Your task to perform on an android device: allow cookies in the chrome app Image 0: 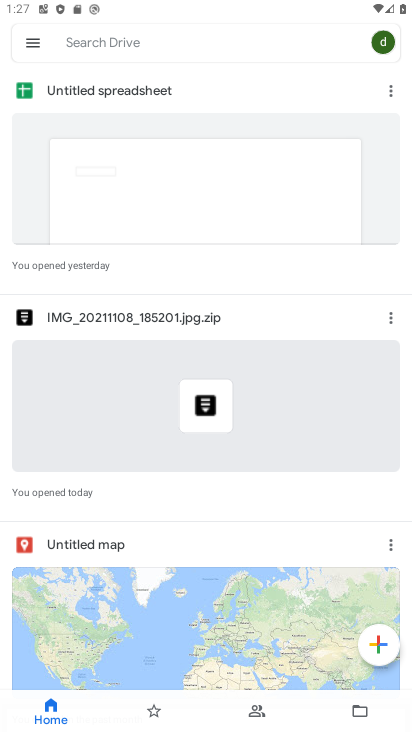
Step 0: press home button
Your task to perform on an android device: allow cookies in the chrome app Image 1: 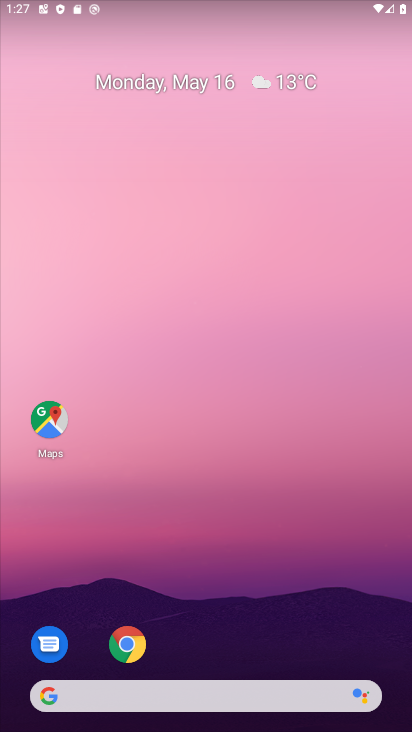
Step 1: drag from (257, 622) to (273, 202)
Your task to perform on an android device: allow cookies in the chrome app Image 2: 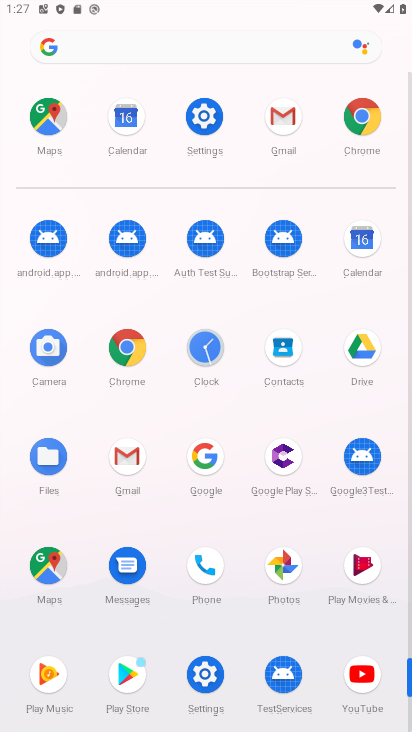
Step 2: click (125, 370)
Your task to perform on an android device: allow cookies in the chrome app Image 3: 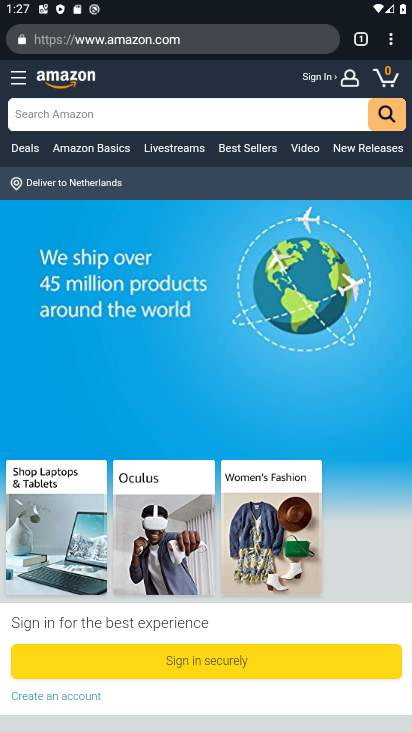
Step 3: click (390, 43)
Your task to perform on an android device: allow cookies in the chrome app Image 4: 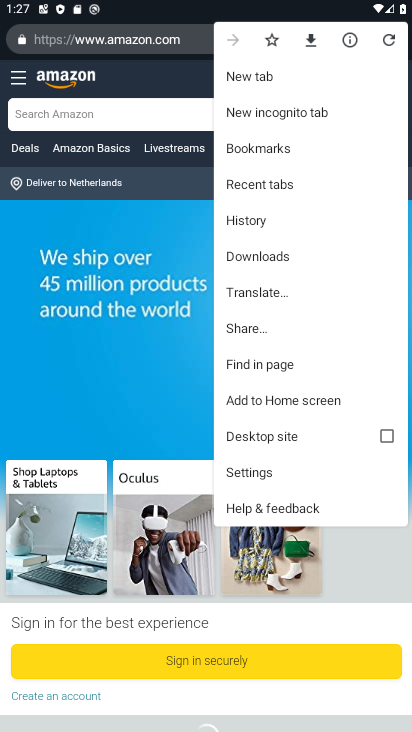
Step 4: click (267, 472)
Your task to perform on an android device: allow cookies in the chrome app Image 5: 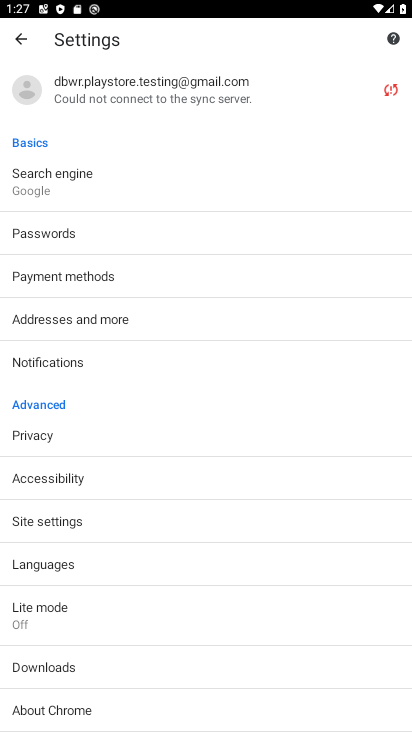
Step 5: drag from (166, 661) to (246, 303)
Your task to perform on an android device: allow cookies in the chrome app Image 6: 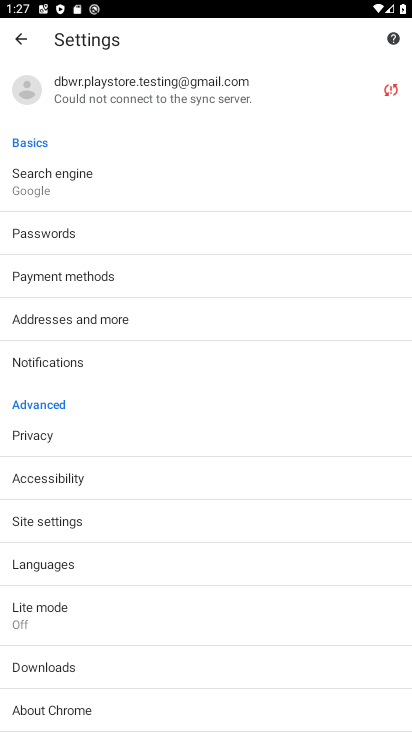
Step 6: click (86, 527)
Your task to perform on an android device: allow cookies in the chrome app Image 7: 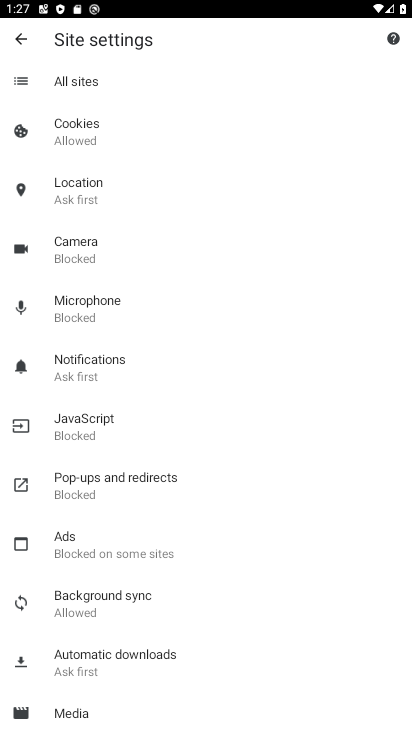
Step 7: click (88, 130)
Your task to perform on an android device: allow cookies in the chrome app Image 8: 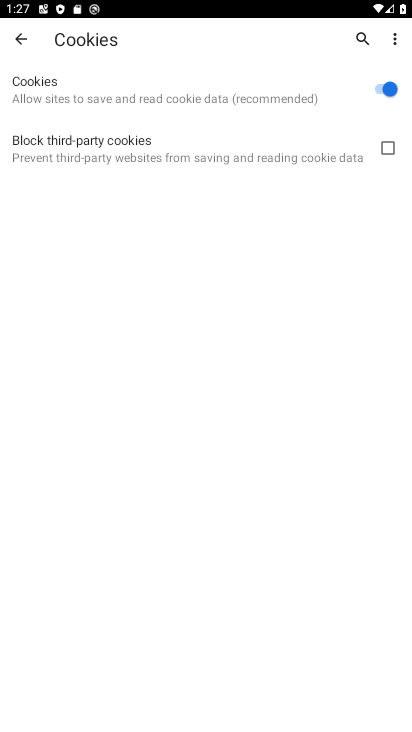
Step 8: task complete